Your task to perform on an android device: Open Chrome and go to settings Image 0: 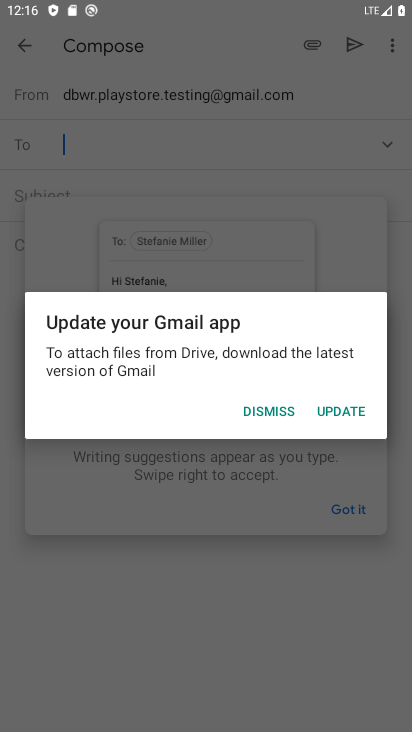
Step 0: press home button
Your task to perform on an android device: Open Chrome and go to settings Image 1: 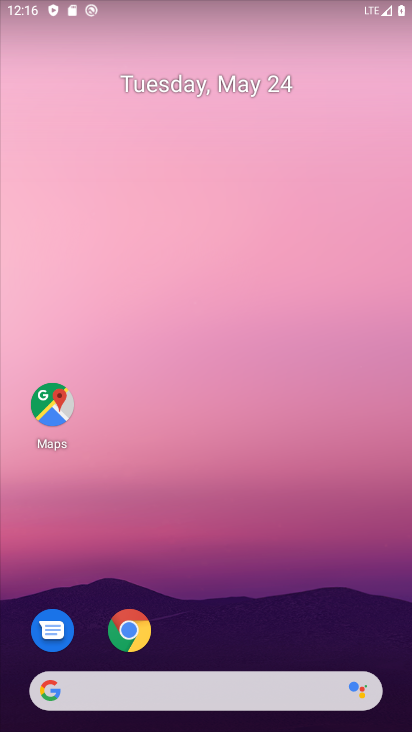
Step 1: click (131, 628)
Your task to perform on an android device: Open Chrome and go to settings Image 2: 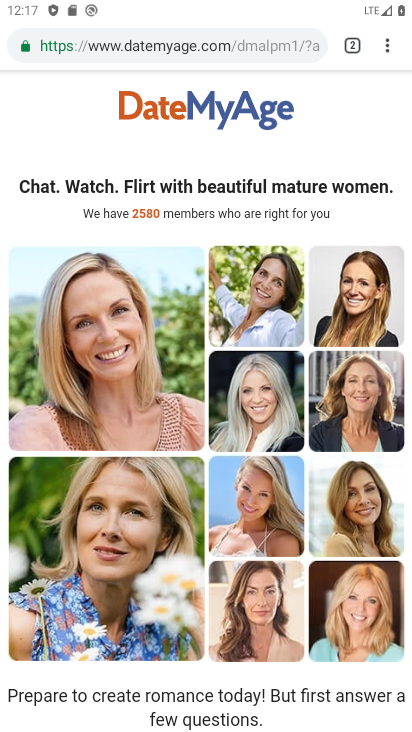
Step 2: click (383, 53)
Your task to perform on an android device: Open Chrome and go to settings Image 3: 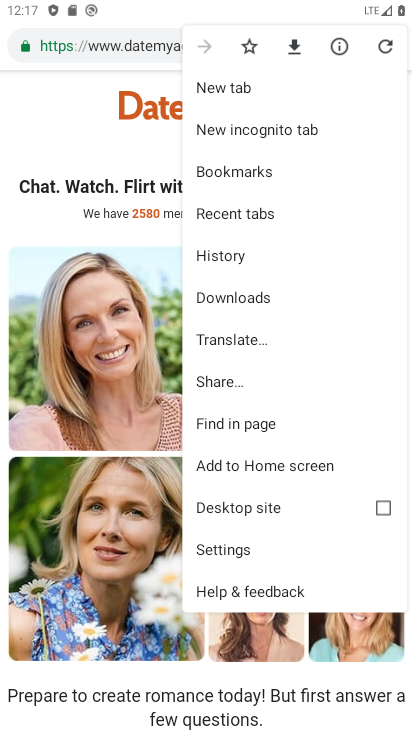
Step 3: click (255, 543)
Your task to perform on an android device: Open Chrome and go to settings Image 4: 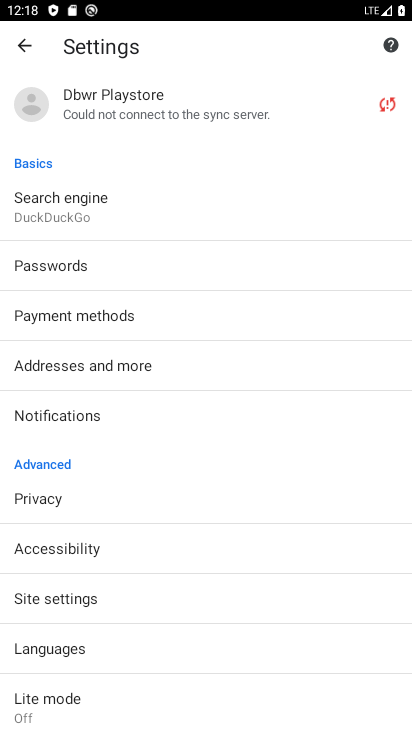
Step 4: task complete